Your task to perform on an android device: read, delete, or share a saved page in the chrome app Image 0: 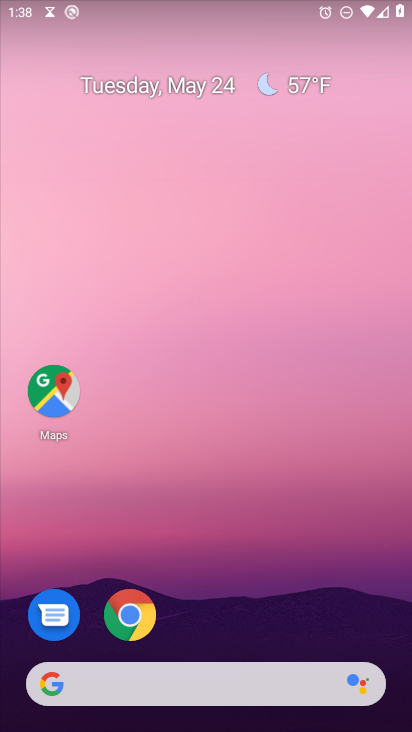
Step 0: click (124, 618)
Your task to perform on an android device: read, delete, or share a saved page in the chrome app Image 1: 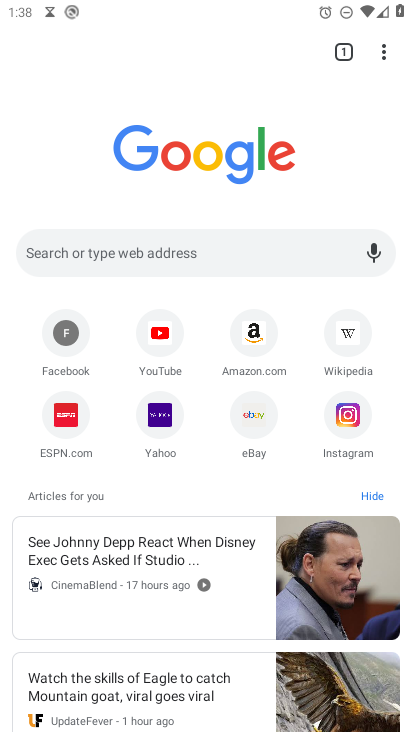
Step 1: click (385, 51)
Your task to perform on an android device: read, delete, or share a saved page in the chrome app Image 2: 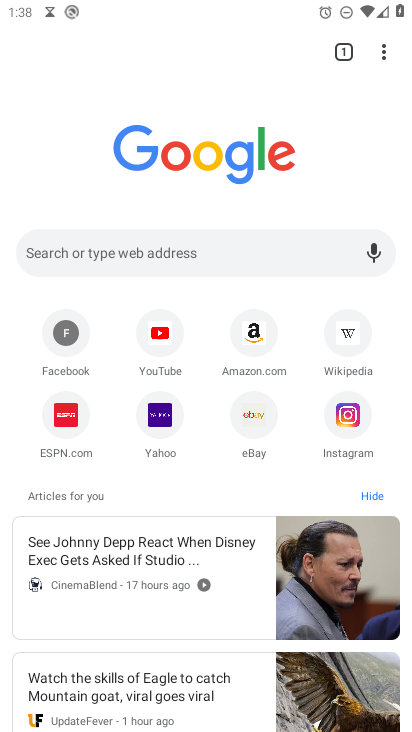
Step 2: click (386, 51)
Your task to perform on an android device: read, delete, or share a saved page in the chrome app Image 3: 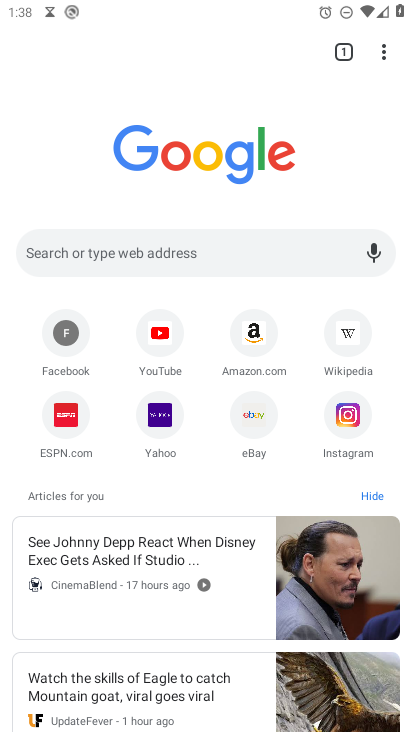
Step 3: click (371, 49)
Your task to perform on an android device: read, delete, or share a saved page in the chrome app Image 4: 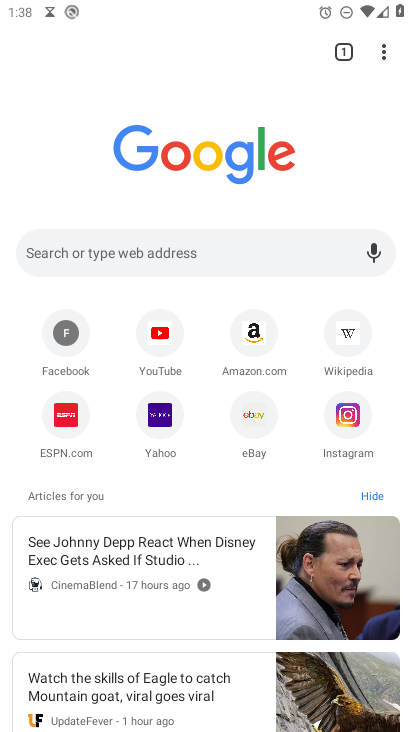
Step 4: click (378, 55)
Your task to perform on an android device: read, delete, or share a saved page in the chrome app Image 5: 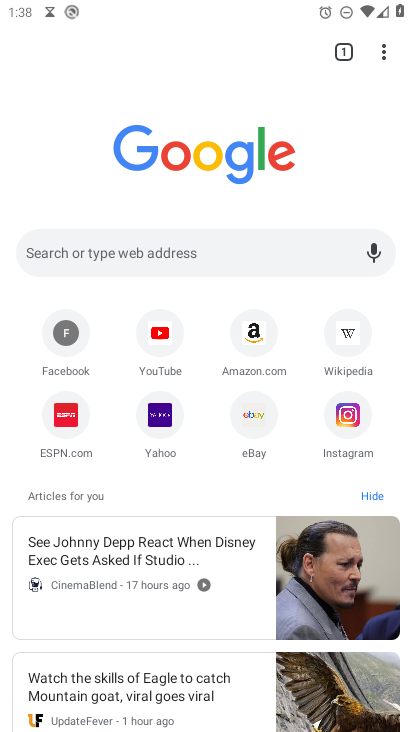
Step 5: click (375, 52)
Your task to perform on an android device: read, delete, or share a saved page in the chrome app Image 6: 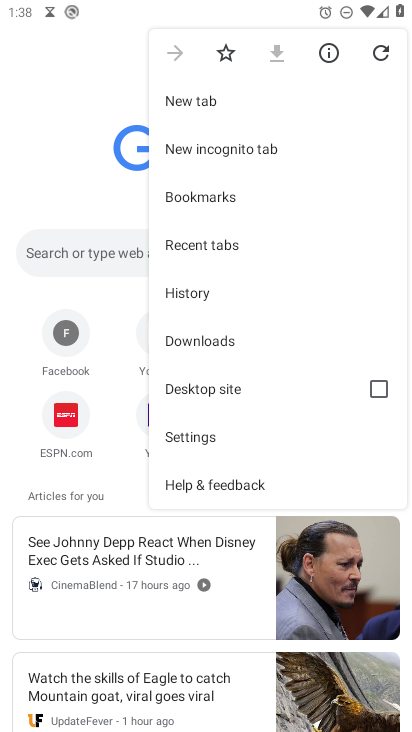
Step 6: click (216, 325)
Your task to perform on an android device: read, delete, or share a saved page in the chrome app Image 7: 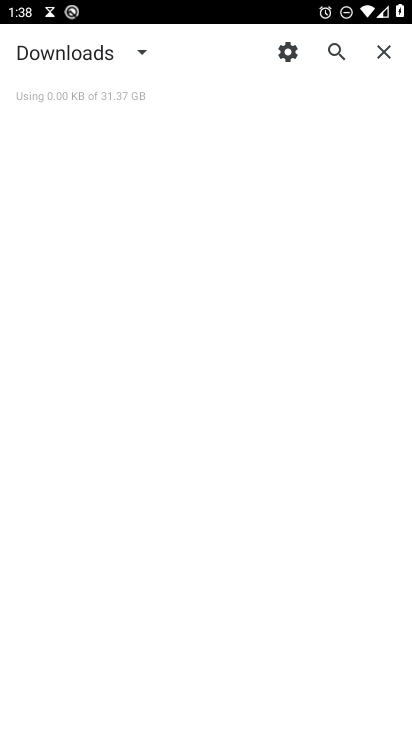
Step 7: click (146, 53)
Your task to perform on an android device: read, delete, or share a saved page in the chrome app Image 8: 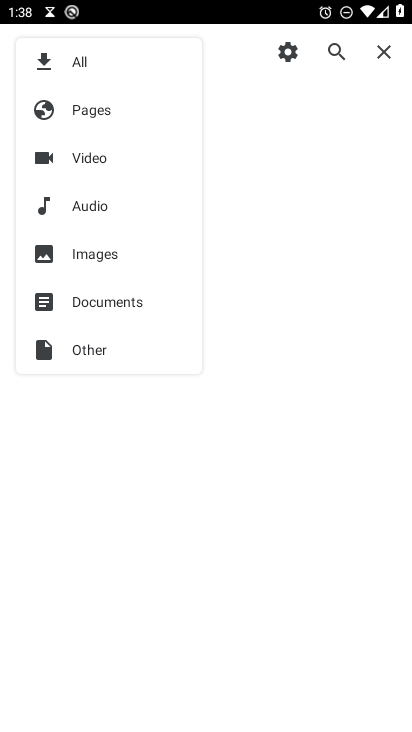
Step 8: click (84, 123)
Your task to perform on an android device: read, delete, or share a saved page in the chrome app Image 9: 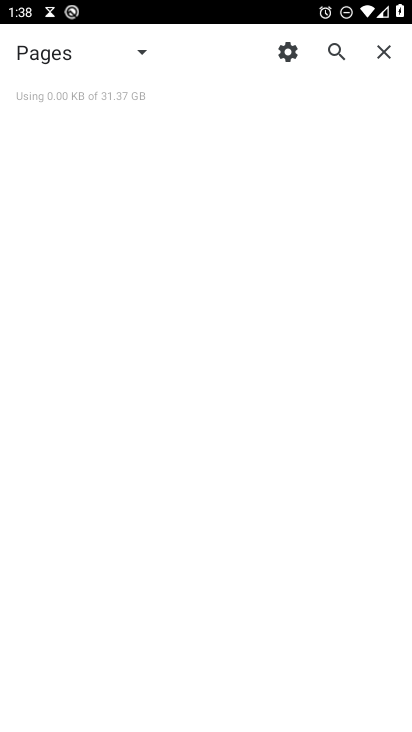
Step 9: task complete